Your task to perform on an android device: change keyboard looks Image 0: 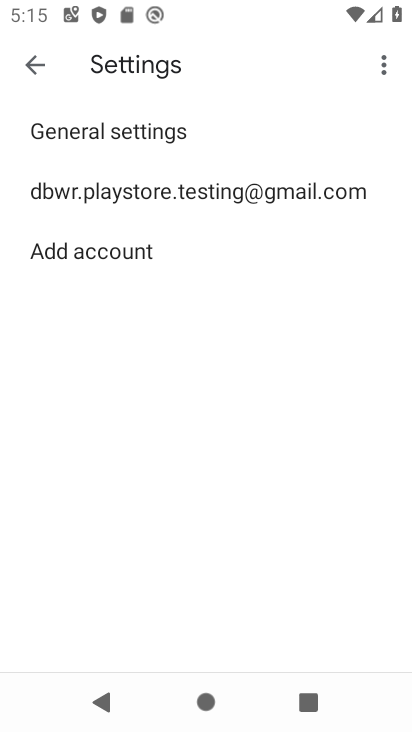
Step 0: press home button
Your task to perform on an android device: change keyboard looks Image 1: 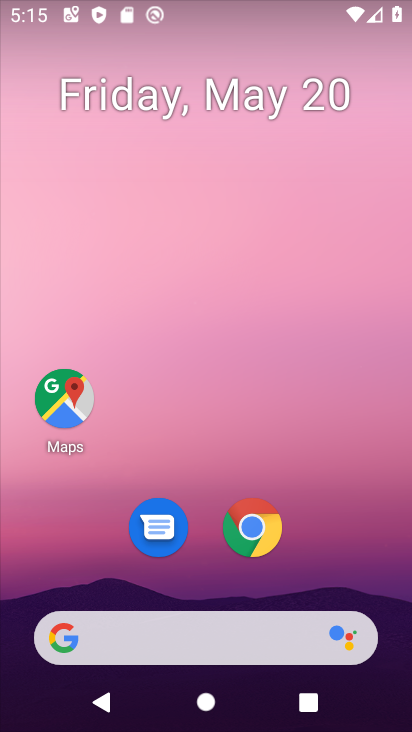
Step 1: drag from (305, 642) to (299, 14)
Your task to perform on an android device: change keyboard looks Image 2: 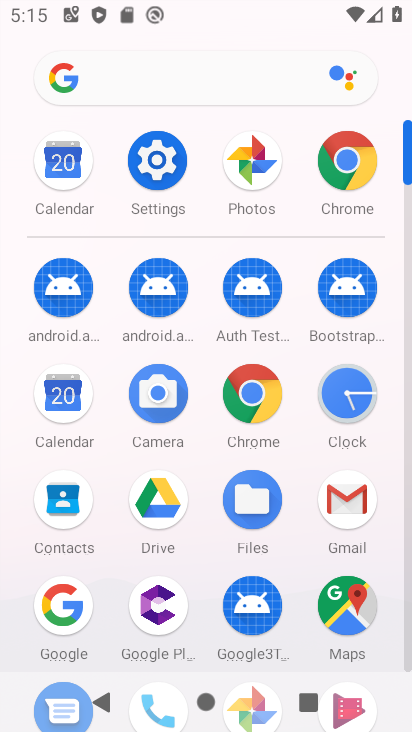
Step 2: click (160, 157)
Your task to perform on an android device: change keyboard looks Image 3: 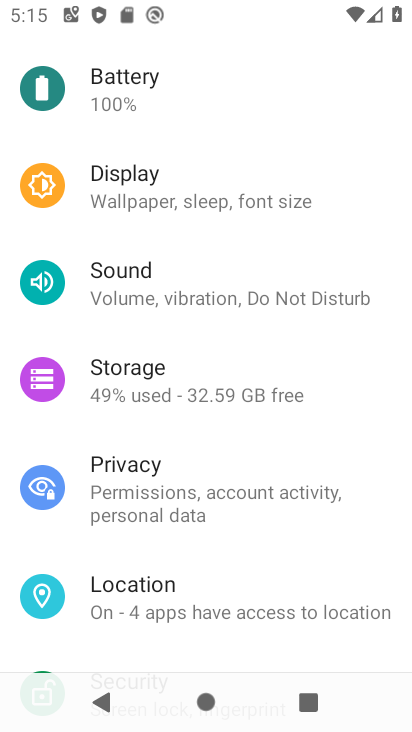
Step 3: drag from (253, 638) to (231, 60)
Your task to perform on an android device: change keyboard looks Image 4: 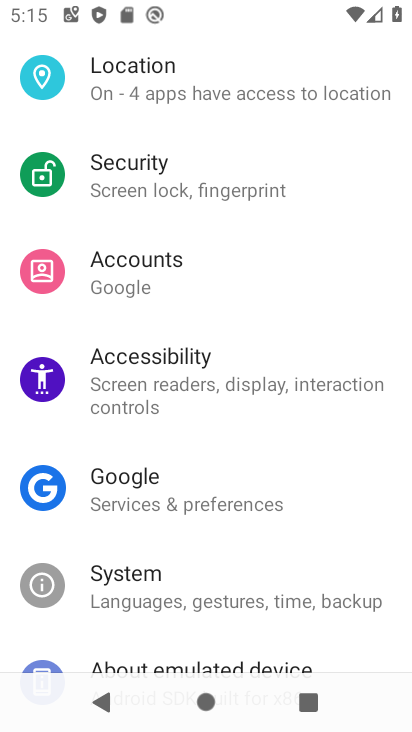
Step 4: click (191, 581)
Your task to perform on an android device: change keyboard looks Image 5: 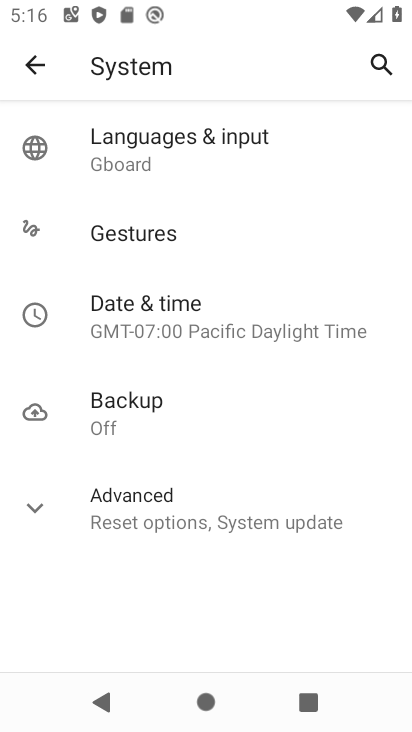
Step 5: click (149, 143)
Your task to perform on an android device: change keyboard looks Image 6: 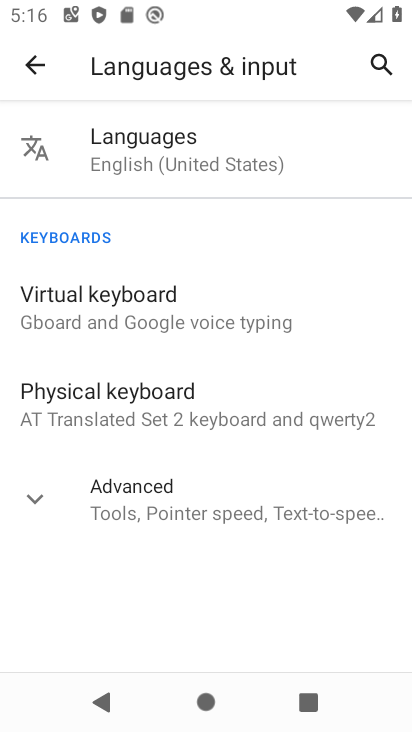
Step 6: click (150, 320)
Your task to perform on an android device: change keyboard looks Image 7: 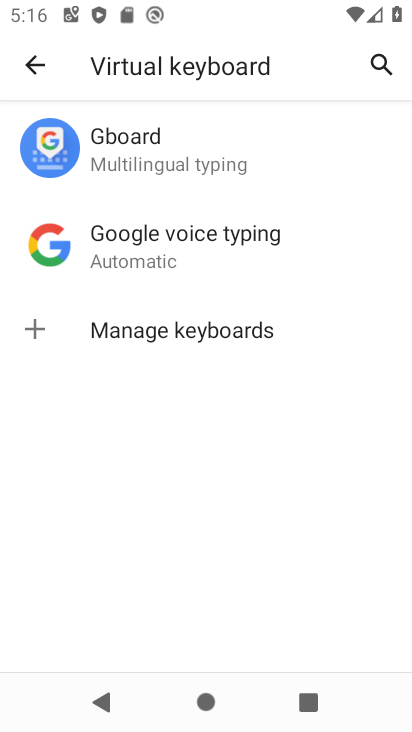
Step 7: click (171, 152)
Your task to perform on an android device: change keyboard looks Image 8: 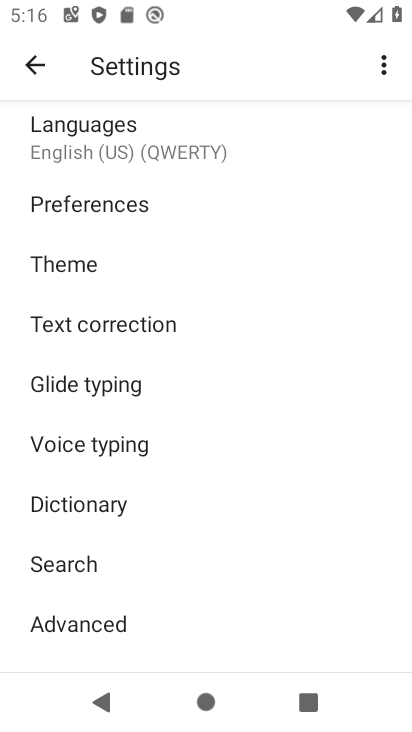
Step 8: click (49, 263)
Your task to perform on an android device: change keyboard looks Image 9: 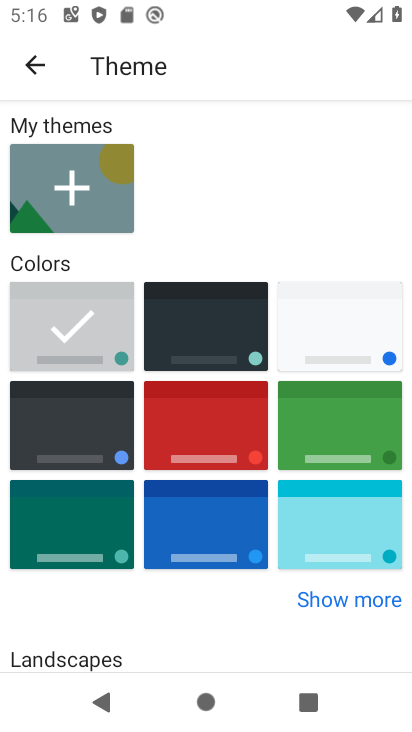
Step 9: click (351, 445)
Your task to perform on an android device: change keyboard looks Image 10: 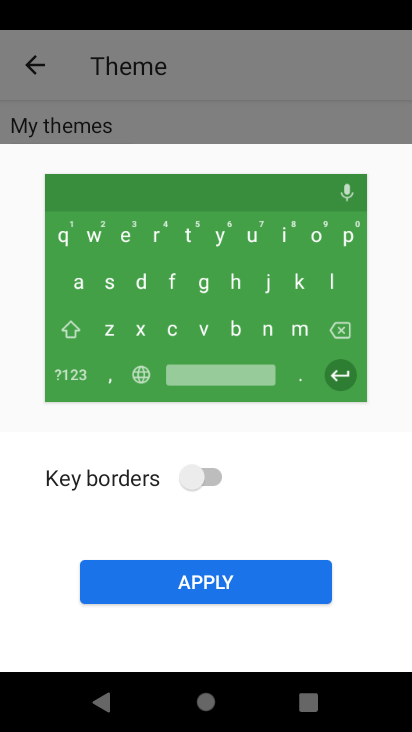
Step 10: click (277, 581)
Your task to perform on an android device: change keyboard looks Image 11: 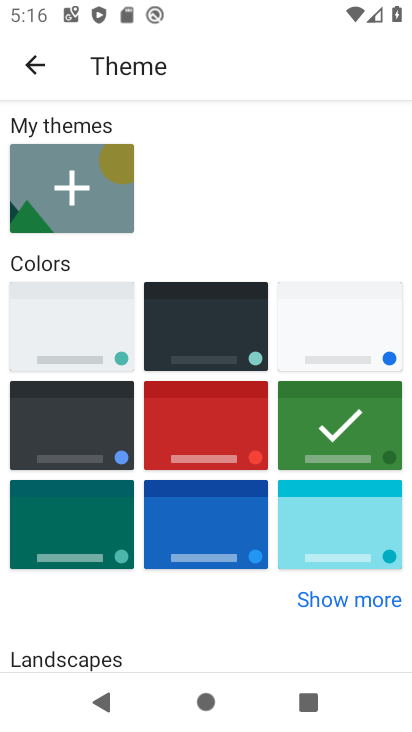
Step 11: task complete